Your task to perform on an android device: toggle data saver in the chrome app Image 0: 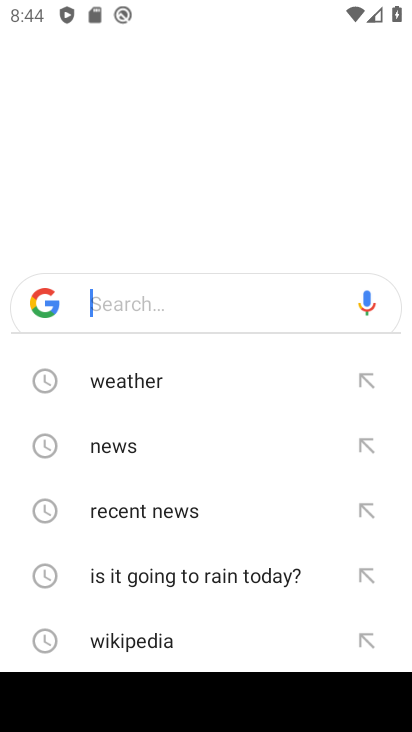
Step 0: press home button
Your task to perform on an android device: toggle data saver in the chrome app Image 1: 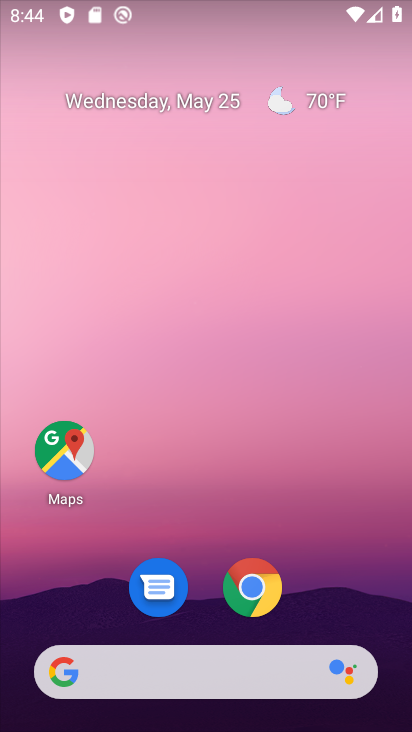
Step 1: click (260, 579)
Your task to perform on an android device: toggle data saver in the chrome app Image 2: 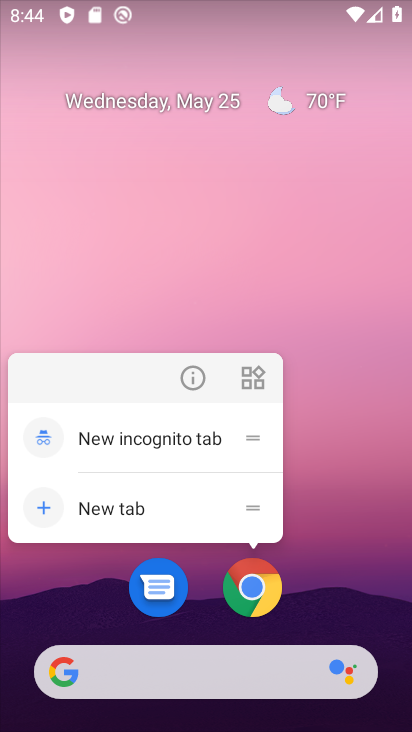
Step 2: click (259, 595)
Your task to perform on an android device: toggle data saver in the chrome app Image 3: 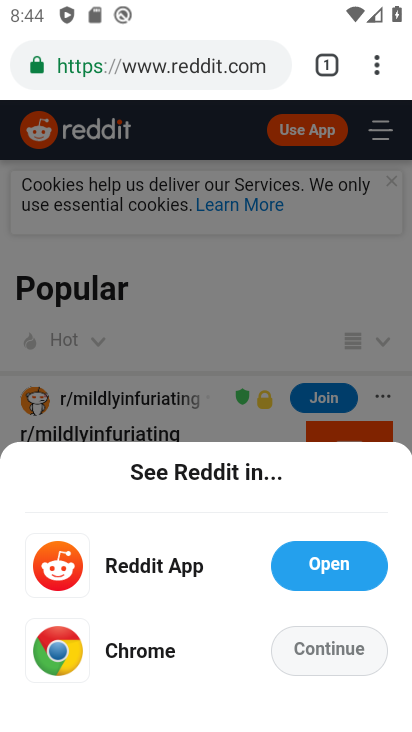
Step 3: click (370, 61)
Your task to perform on an android device: toggle data saver in the chrome app Image 4: 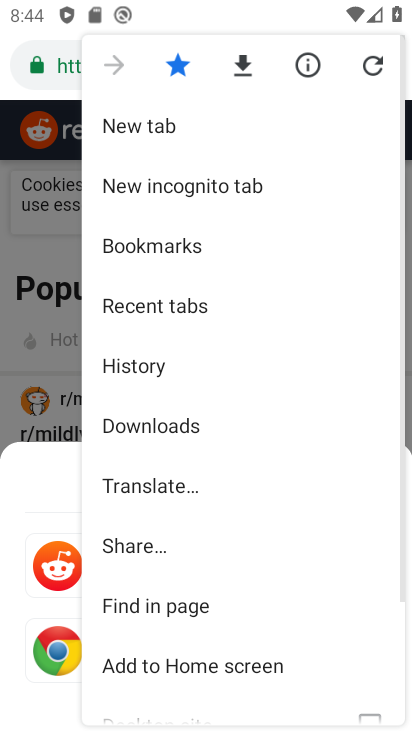
Step 4: drag from (197, 616) to (234, 316)
Your task to perform on an android device: toggle data saver in the chrome app Image 5: 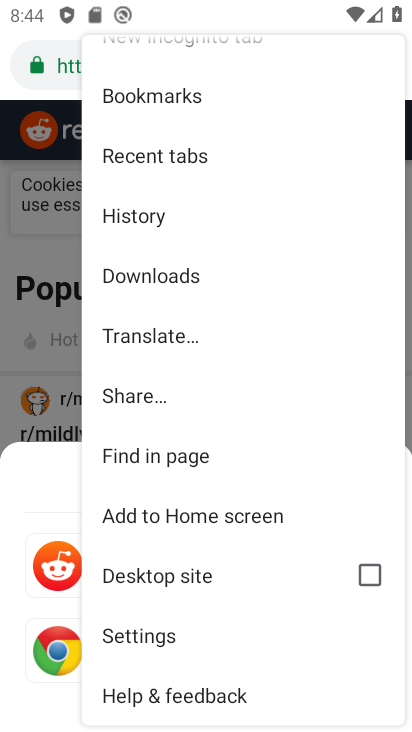
Step 5: click (167, 628)
Your task to perform on an android device: toggle data saver in the chrome app Image 6: 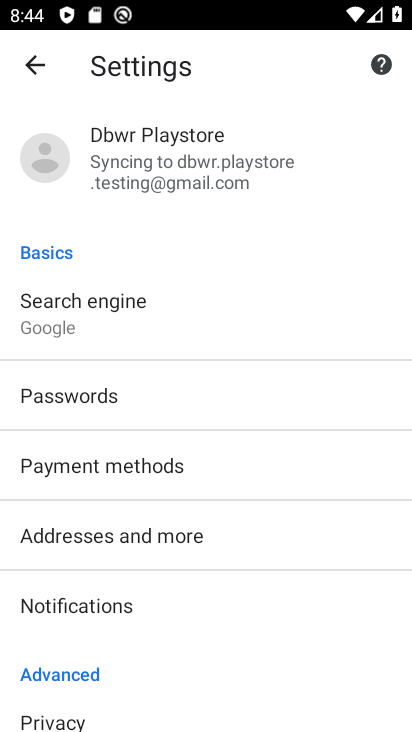
Step 6: drag from (176, 593) to (223, 211)
Your task to perform on an android device: toggle data saver in the chrome app Image 7: 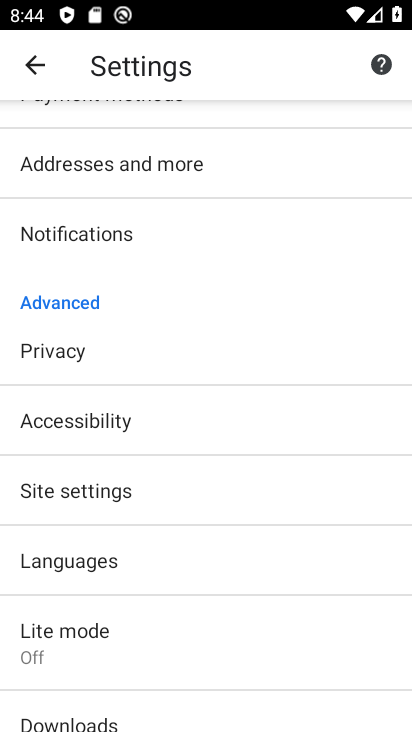
Step 7: click (78, 660)
Your task to perform on an android device: toggle data saver in the chrome app Image 8: 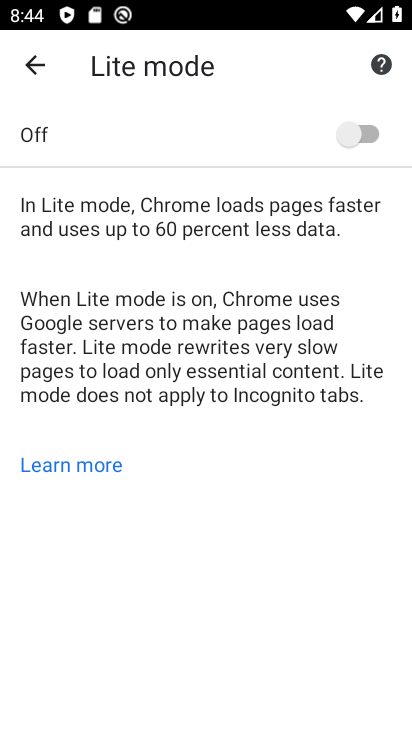
Step 8: click (380, 122)
Your task to perform on an android device: toggle data saver in the chrome app Image 9: 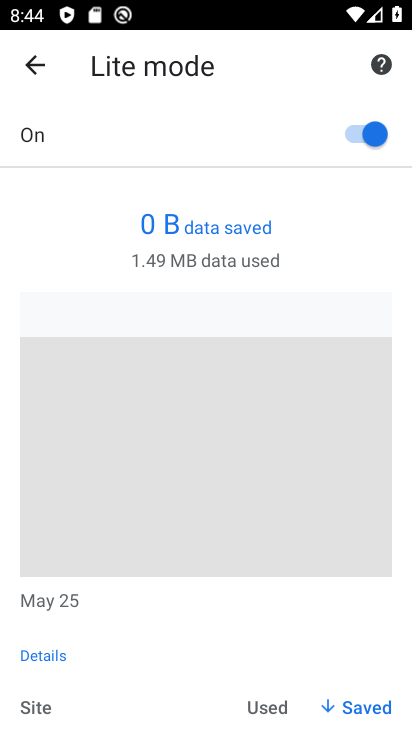
Step 9: task complete